Your task to perform on an android device: Toggle the flashlight Image 0: 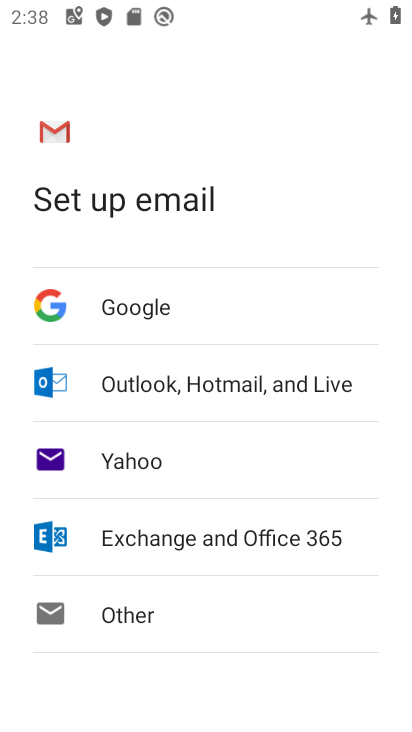
Step 0: press home button
Your task to perform on an android device: Toggle the flashlight Image 1: 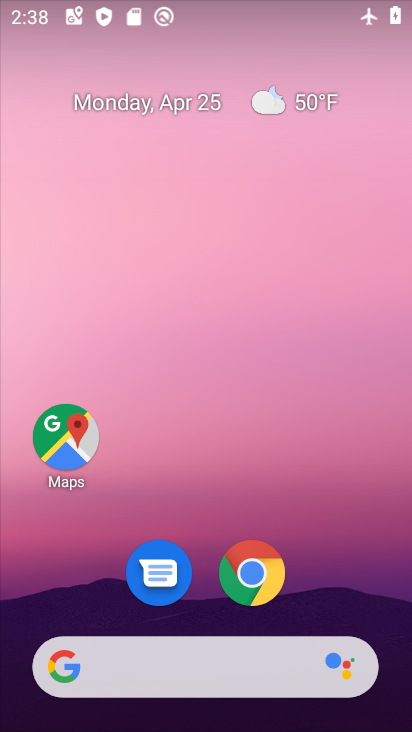
Step 1: drag from (337, 523) to (375, 33)
Your task to perform on an android device: Toggle the flashlight Image 2: 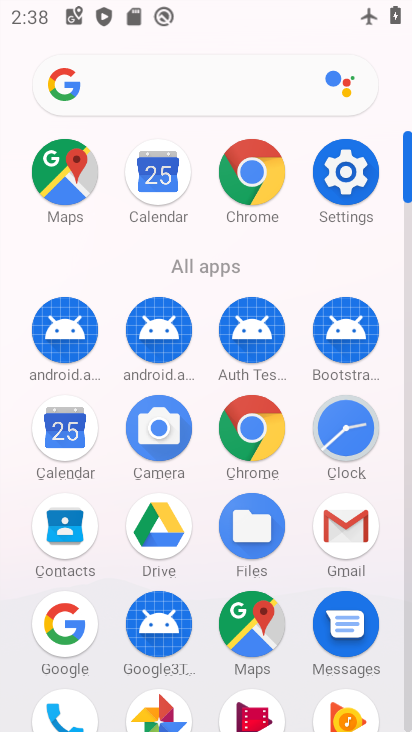
Step 2: click (324, 161)
Your task to perform on an android device: Toggle the flashlight Image 3: 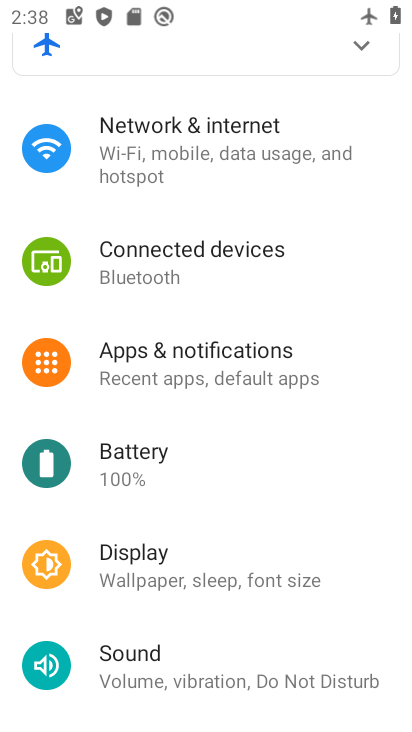
Step 3: task complete